Your task to perform on an android device: Open Youtube and go to the subscriptions tab Image 0: 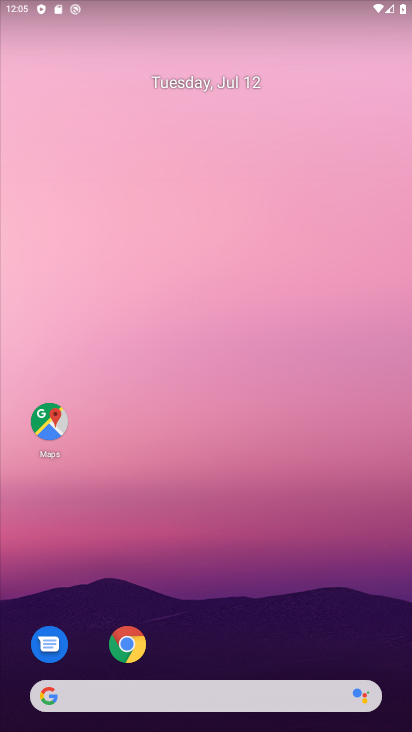
Step 0: drag from (37, 693) to (197, 94)
Your task to perform on an android device: Open Youtube and go to the subscriptions tab Image 1: 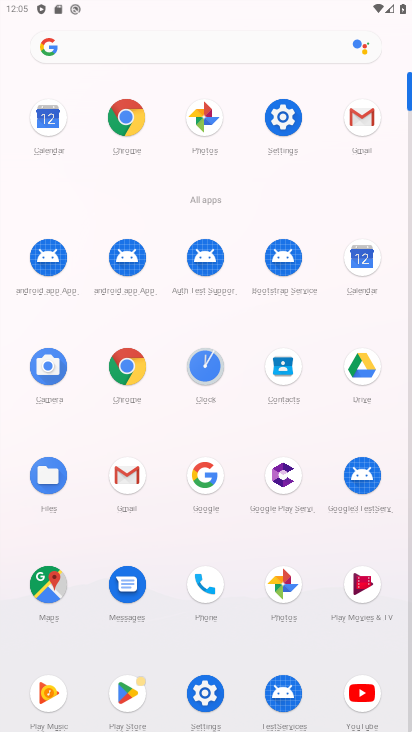
Step 1: click (351, 693)
Your task to perform on an android device: Open Youtube and go to the subscriptions tab Image 2: 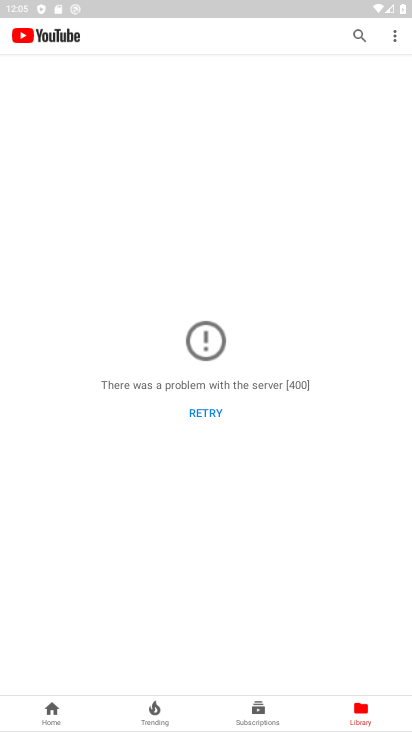
Step 2: click (253, 717)
Your task to perform on an android device: Open Youtube and go to the subscriptions tab Image 3: 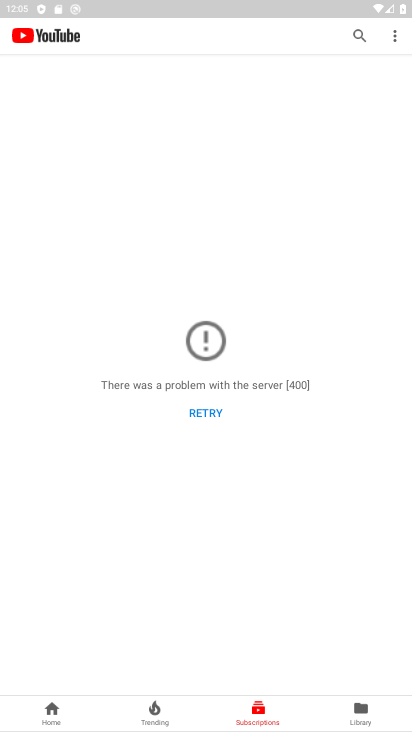
Step 3: task complete